Your task to perform on an android device: change alarm snooze length Image 0: 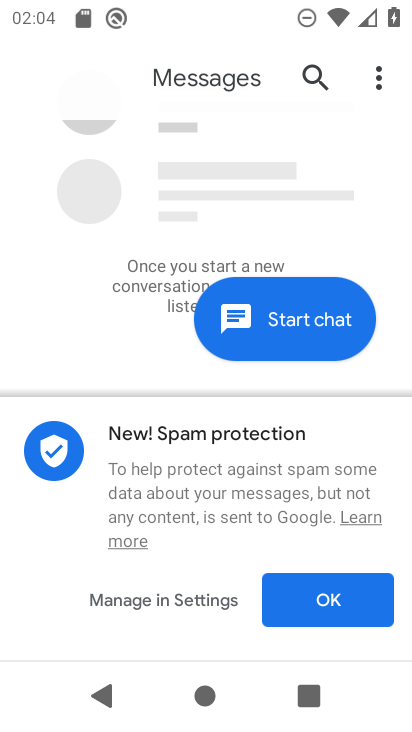
Step 0: press home button
Your task to perform on an android device: change alarm snooze length Image 1: 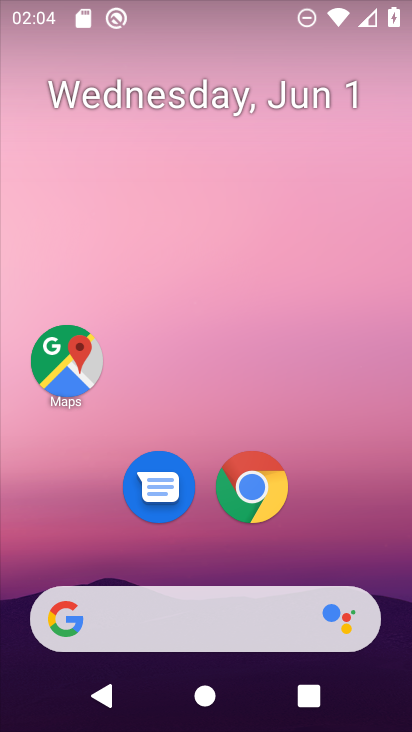
Step 1: drag from (321, 538) to (306, 225)
Your task to perform on an android device: change alarm snooze length Image 2: 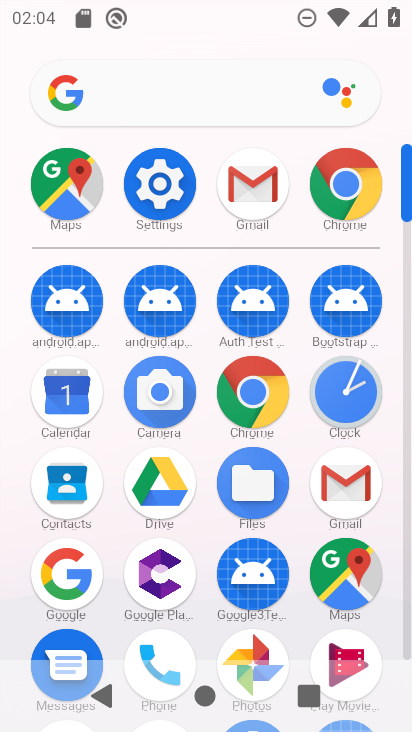
Step 2: click (348, 391)
Your task to perform on an android device: change alarm snooze length Image 3: 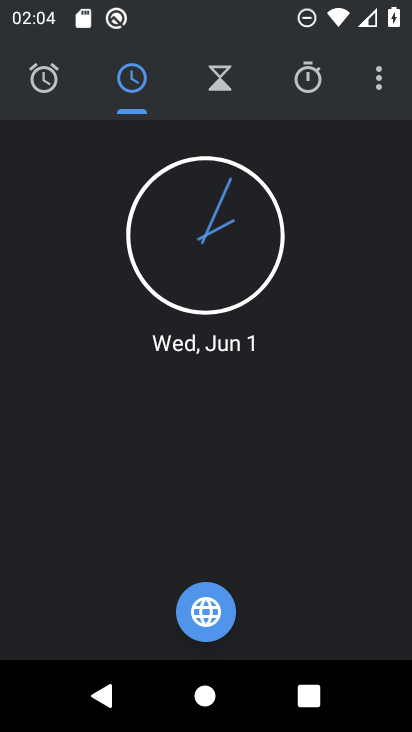
Step 3: click (368, 77)
Your task to perform on an android device: change alarm snooze length Image 4: 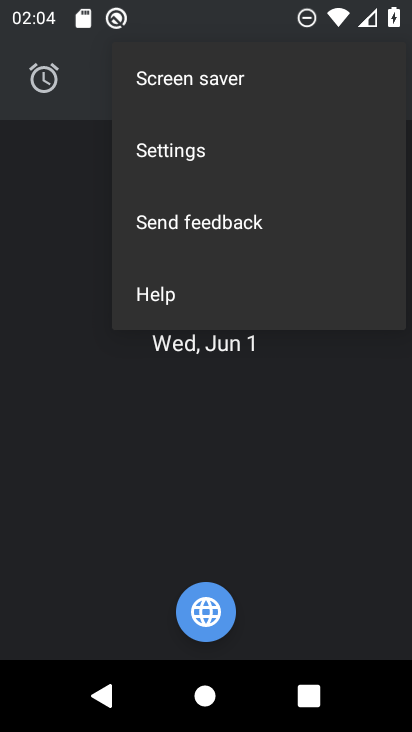
Step 4: click (229, 150)
Your task to perform on an android device: change alarm snooze length Image 5: 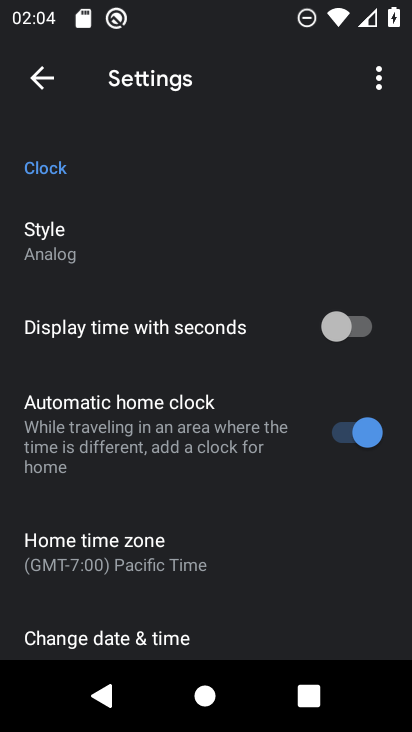
Step 5: drag from (90, 560) to (213, 201)
Your task to perform on an android device: change alarm snooze length Image 6: 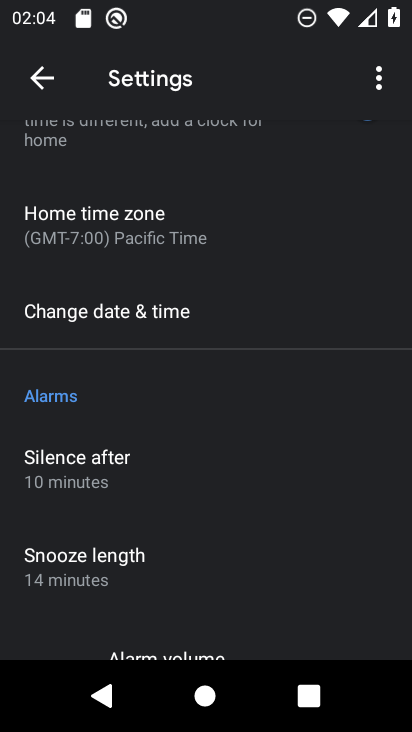
Step 6: click (167, 568)
Your task to perform on an android device: change alarm snooze length Image 7: 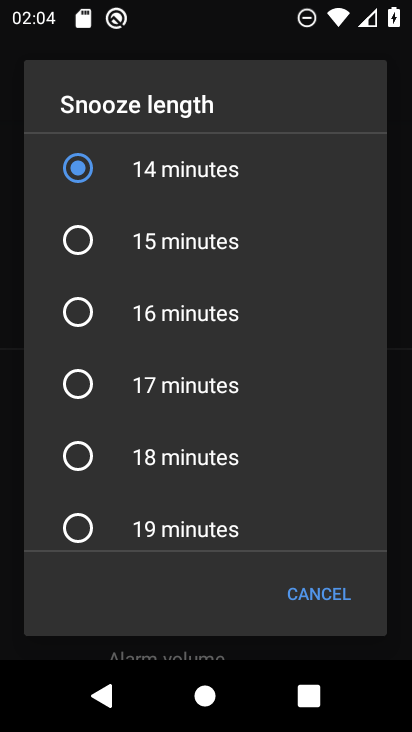
Step 7: drag from (263, 498) to (301, 213)
Your task to perform on an android device: change alarm snooze length Image 8: 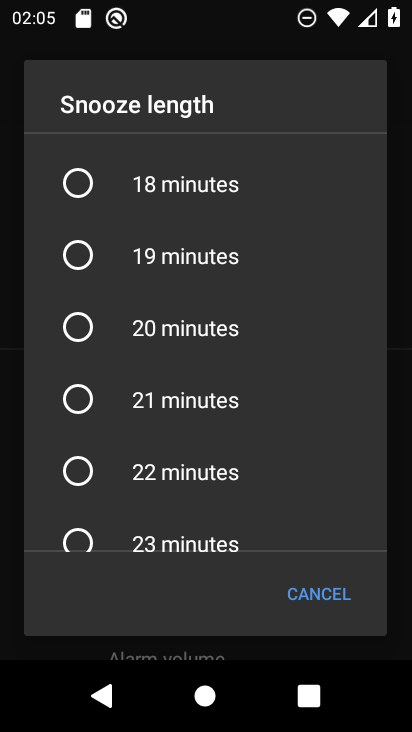
Step 8: click (180, 474)
Your task to perform on an android device: change alarm snooze length Image 9: 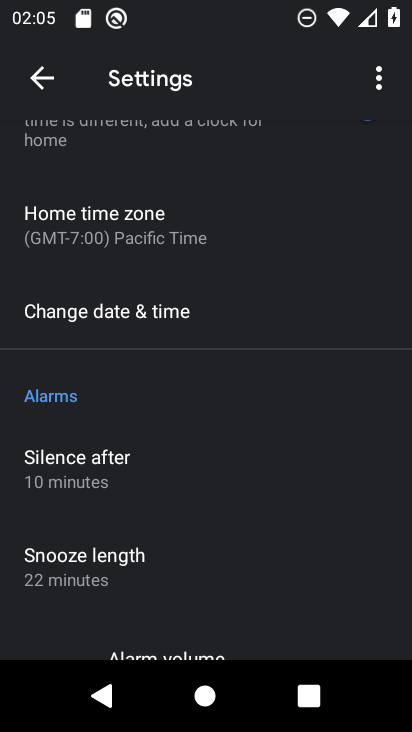
Step 9: task complete